Your task to perform on an android device: toggle translation in the chrome app Image 0: 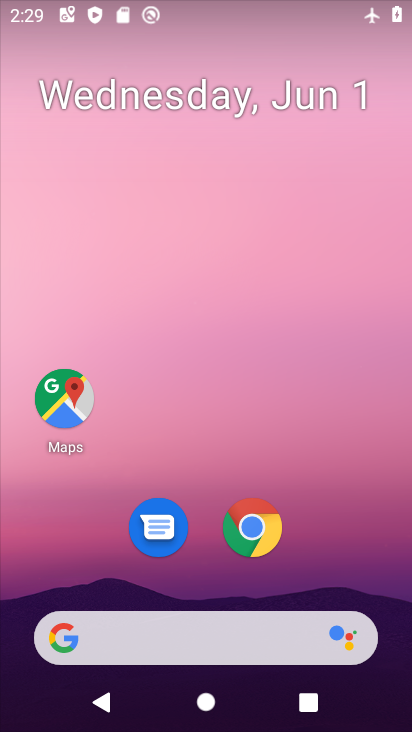
Step 0: click (251, 530)
Your task to perform on an android device: toggle translation in the chrome app Image 1: 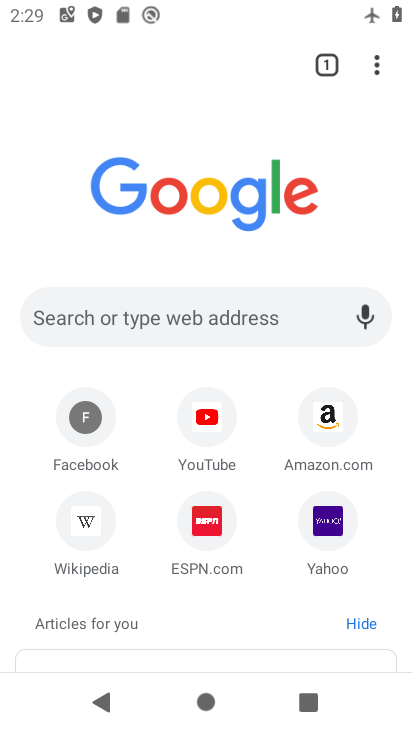
Step 1: click (376, 62)
Your task to perform on an android device: toggle translation in the chrome app Image 2: 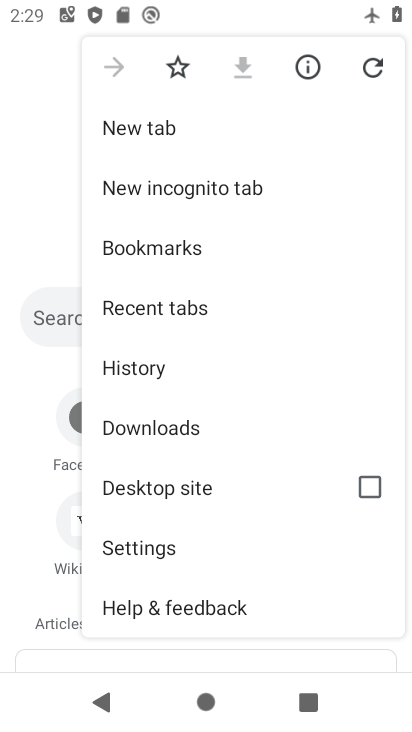
Step 2: click (144, 552)
Your task to perform on an android device: toggle translation in the chrome app Image 3: 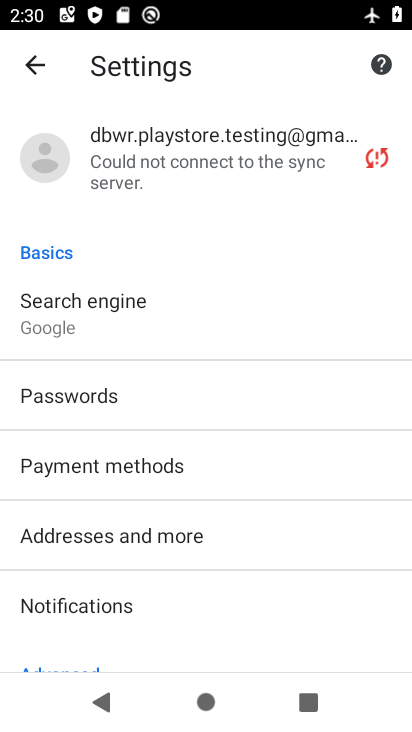
Step 3: drag from (129, 493) to (141, 386)
Your task to perform on an android device: toggle translation in the chrome app Image 4: 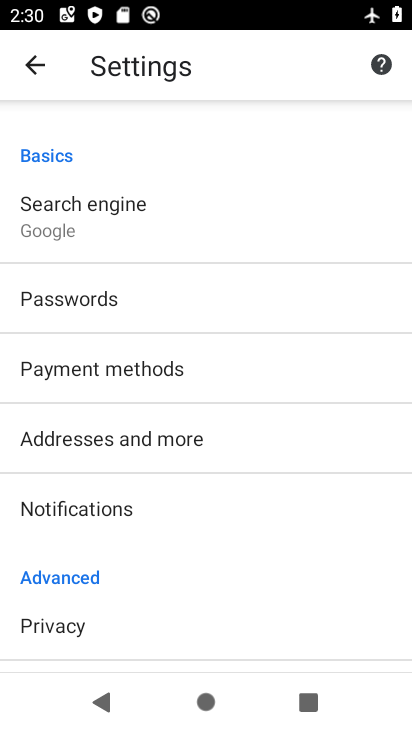
Step 4: drag from (137, 541) to (171, 454)
Your task to perform on an android device: toggle translation in the chrome app Image 5: 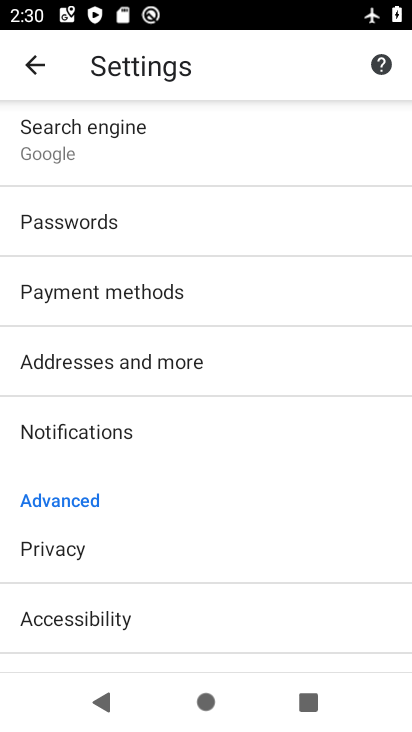
Step 5: drag from (131, 551) to (159, 447)
Your task to perform on an android device: toggle translation in the chrome app Image 6: 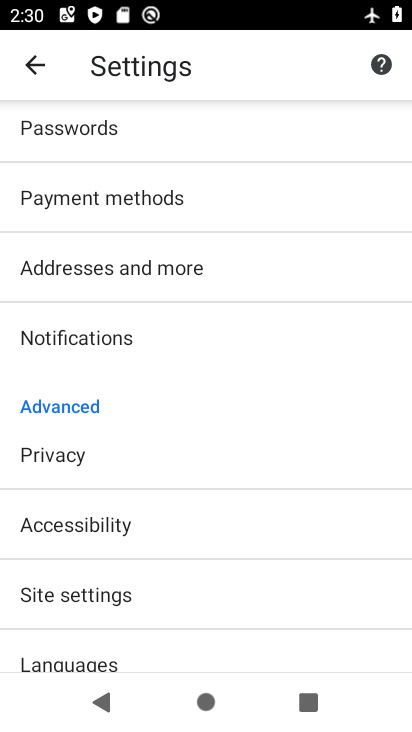
Step 6: drag from (156, 582) to (167, 473)
Your task to perform on an android device: toggle translation in the chrome app Image 7: 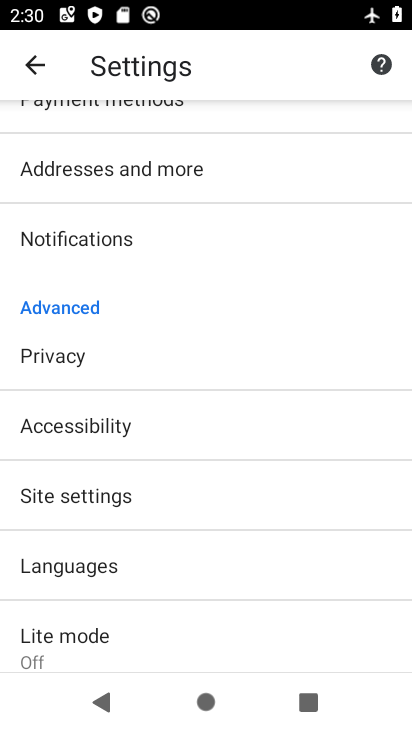
Step 7: click (99, 565)
Your task to perform on an android device: toggle translation in the chrome app Image 8: 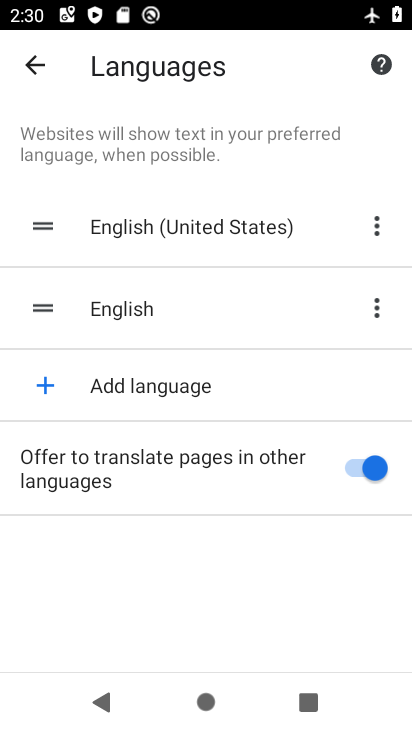
Step 8: click (356, 469)
Your task to perform on an android device: toggle translation in the chrome app Image 9: 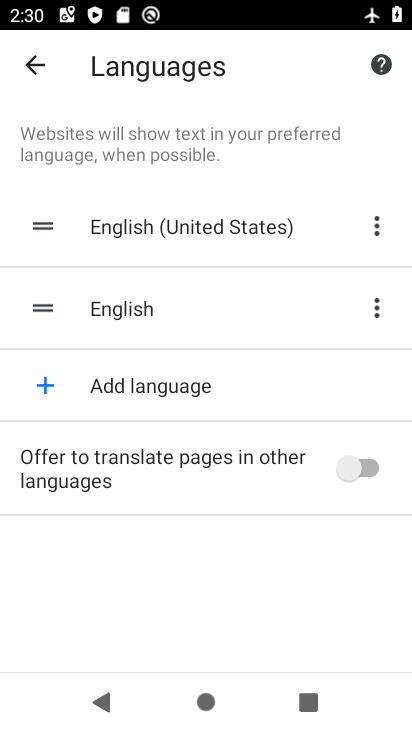
Step 9: task complete